Your task to perform on an android device: check out phone information Image 0: 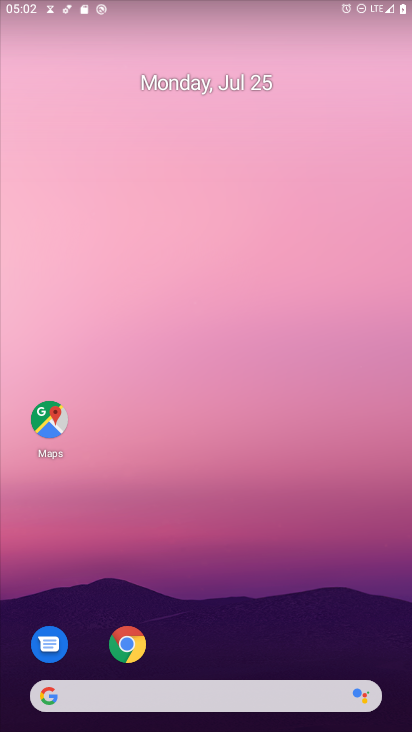
Step 0: press home button
Your task to perform on an android device: check out phone information Image 1: 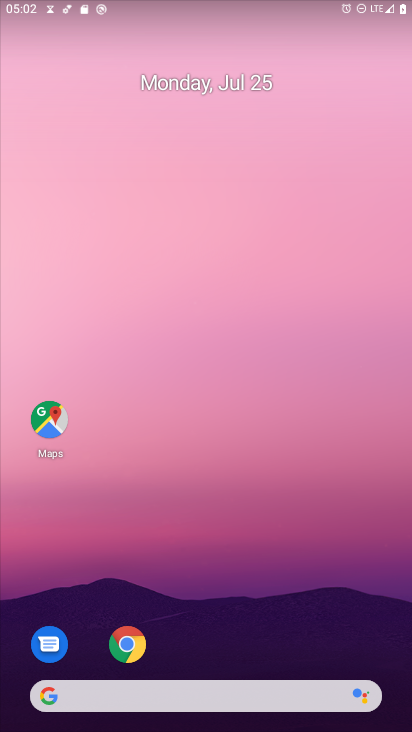
Step 1: drag from (251, 628) to (161, 73)
Your task to perform on an android device: check out phone information Image 2: 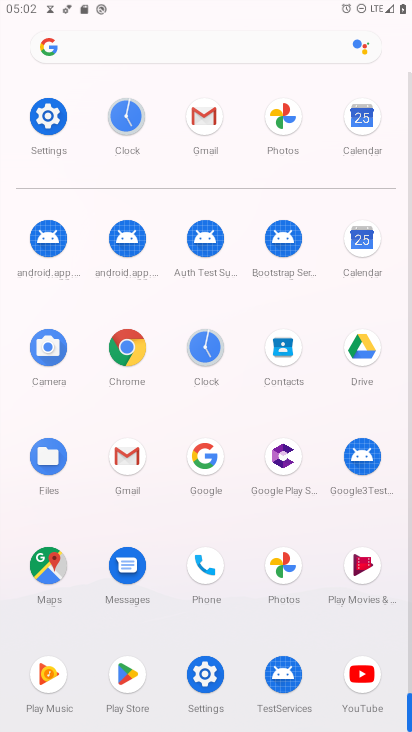
Step 2: click (50, 115)
Your task to perform on an android device: check out phone information Image 3: 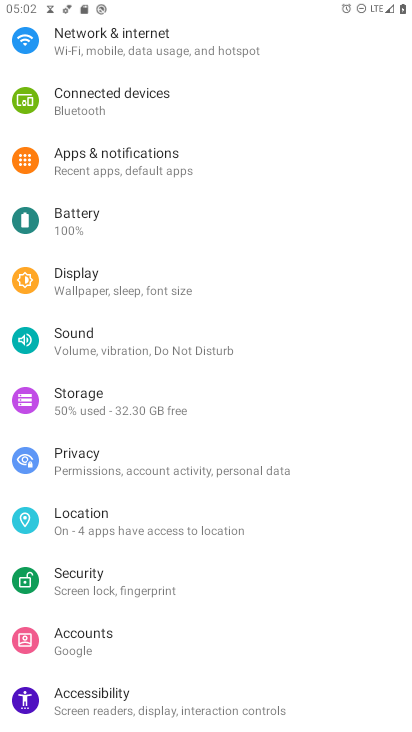
Step 3: drag from (113, 658) to (103, 254)
Your task to perform on an android device: check out phone information Image 4: 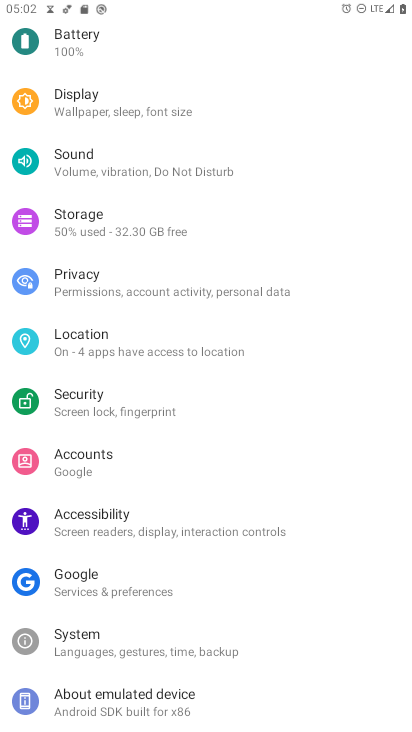
Step 4: click (126, 713)
Your task to perform on an android device: check out phone information Image 5: 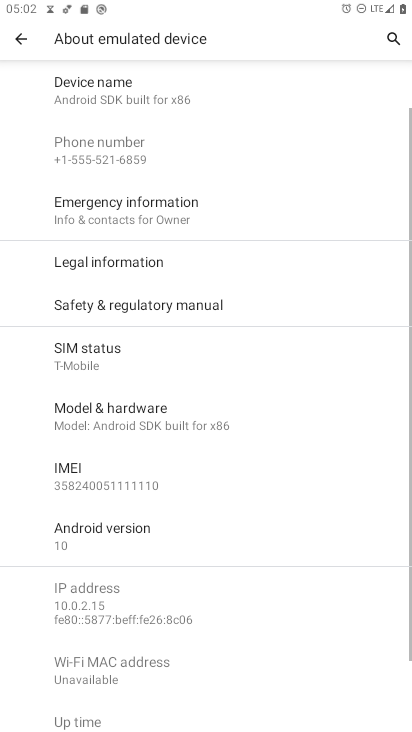
Step 5: task complete